Your task to perform on an android device: Open settings on Google Maps Image 0: 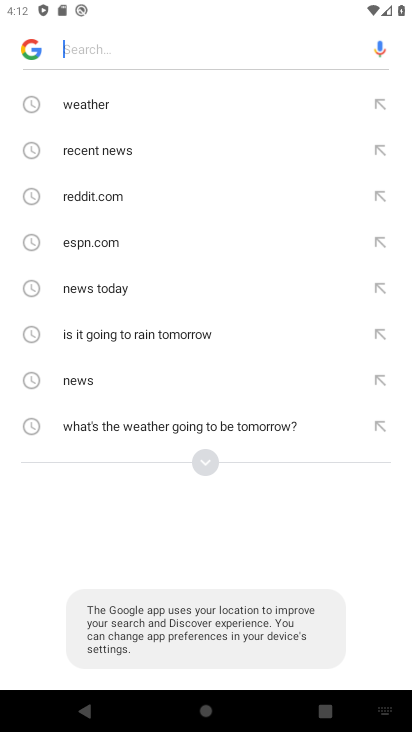
Step 0: press home button
Your task to perform on an android device: Open settings on Google Maps Image 1: 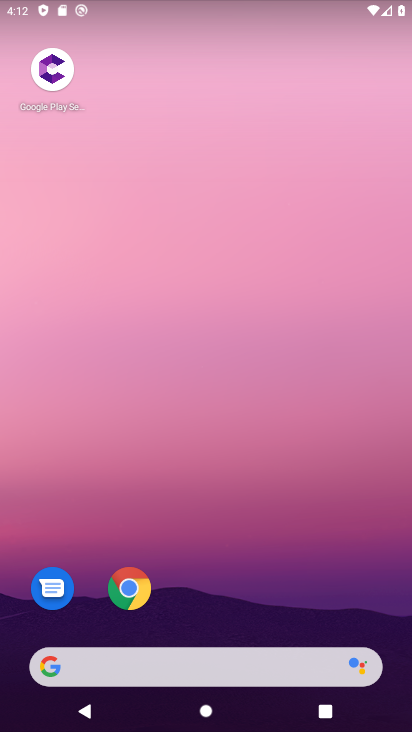
Step 1: drag from (207, 728) to (212, 93)
Your task to perform on an android device: Open settings on Google Maps Image 2: 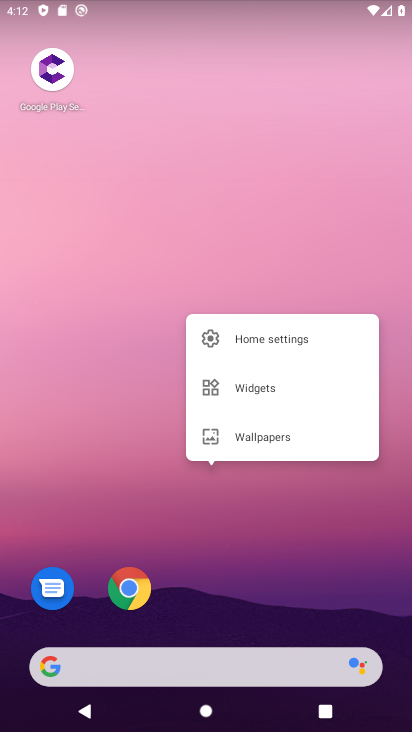
Step 2: click (255, 124)
Your task to perform on an android device: Open settings on Google Maps Image 3: 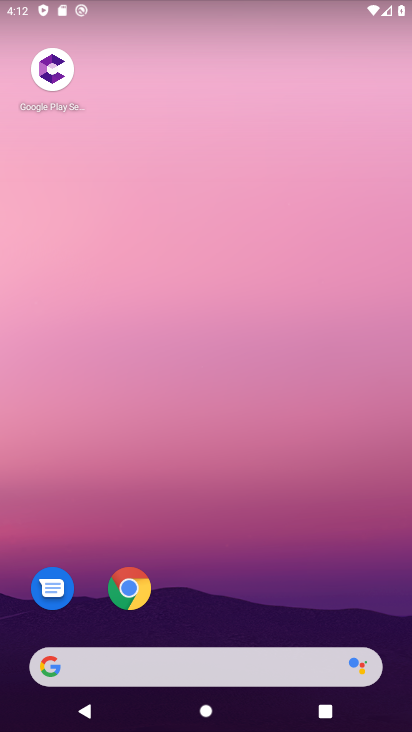
Step 3: drag from (204, 729) to (215, 107)
Your task to perform on an android device: Open settings on Google Maps Image 4: 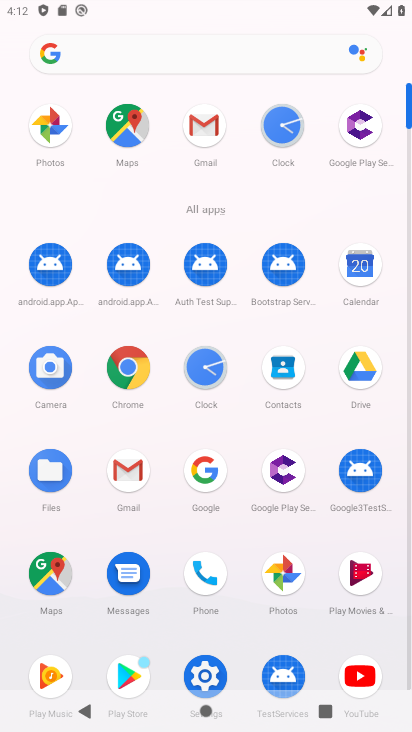
Step 4: click (44, 575)
Your task to perform on an android device: Open settings on Google Maps Image 5: 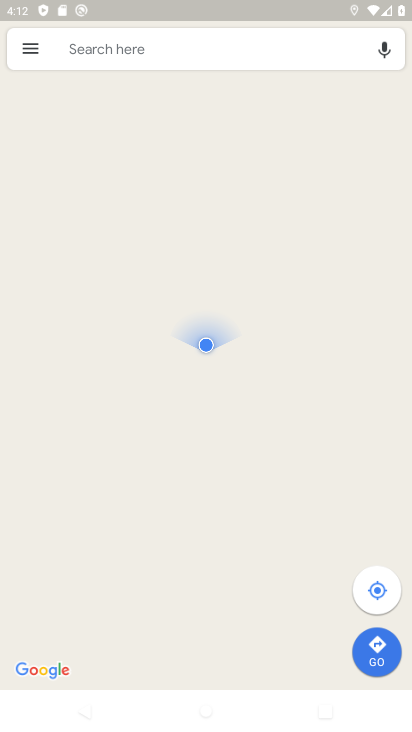
Step 5: click (27, 45)
Your task to perform on an android device: Open settings on Google Maps Image 6: 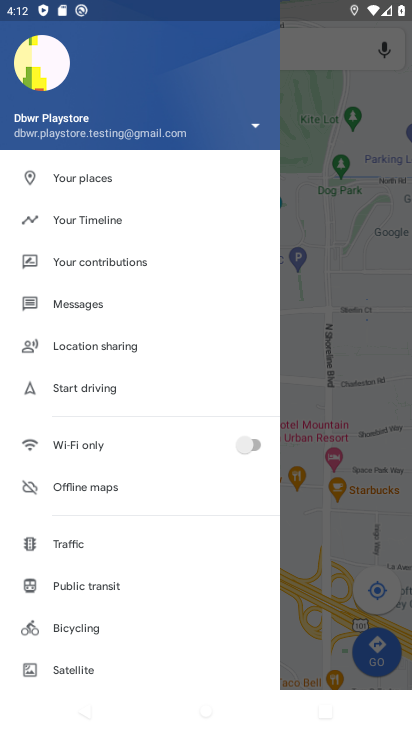
Step 6: drag from (104, 640) to (93, 308)
Your task to perform on an android device: Open settings on Google Maps Image 7: 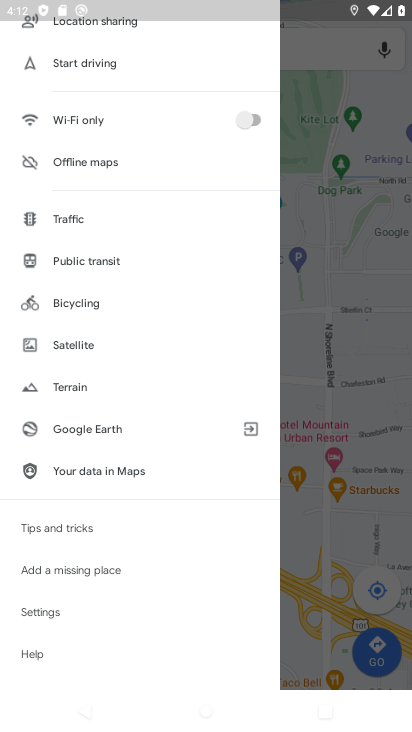
Step 7: click (44, 611)
Your task to perform on an android device: Open settings on Google Maps Image 8: 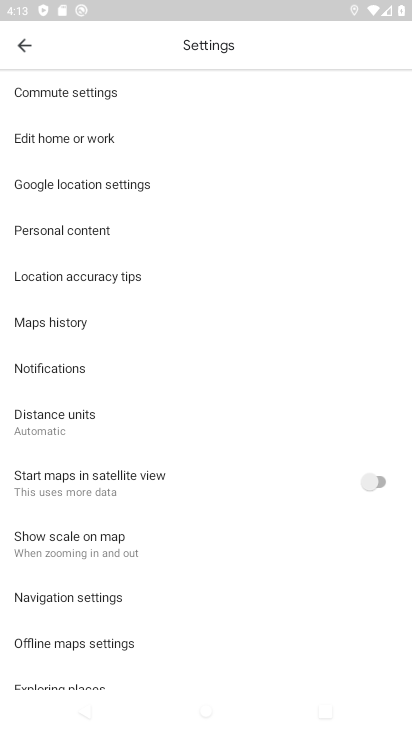
Step 8: task complete